Your task to perform on an android device: Open calendar and show me the third week of next month Image 0: 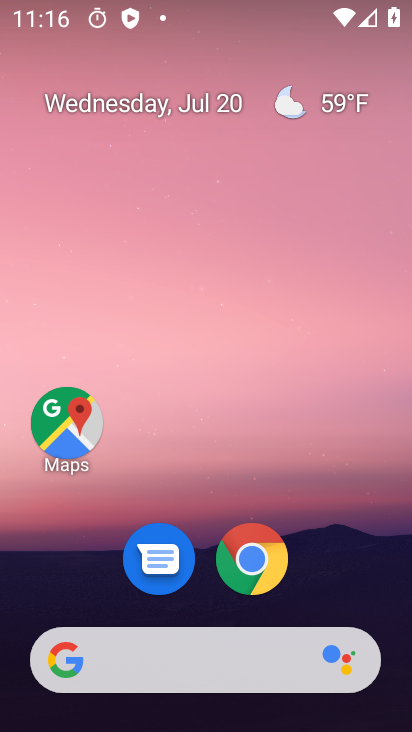
Step 0: drag from (132, 465) to (153, 8)
Your task to perform on an android device: Open calendar and show me the third week of next month Image 1: 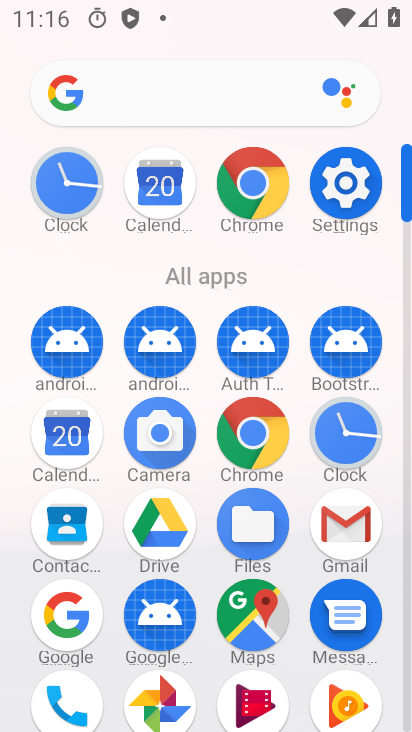
Step 1: click (54, 440)
Your task to perform on an android device: Open calendar and show me the third week of next month Image 2: 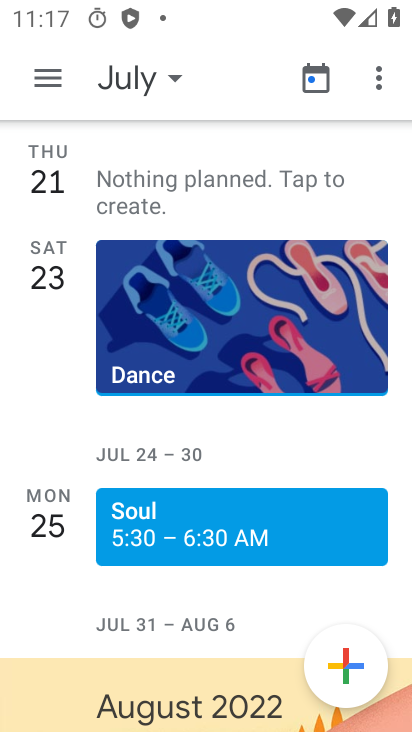
Step 2: click (160, 78)
Your task to perform on an android device: Open calendar and show me the third week of next month Image 3: 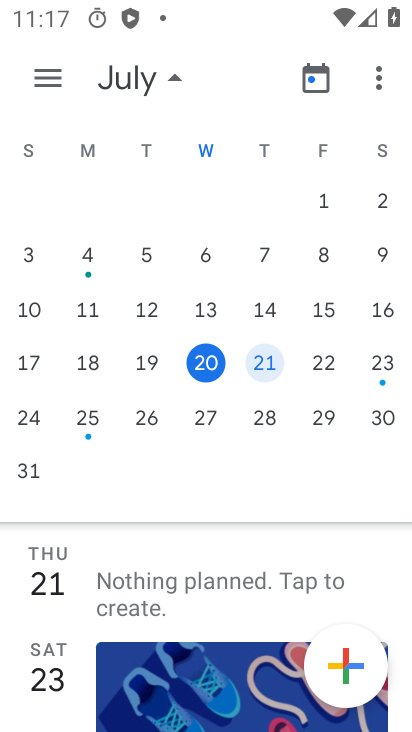
Step 3: drag from (348, 330) to (18, 325)
Your task to perform on an android device: Open calendar and show me the third week of next month Image 4: 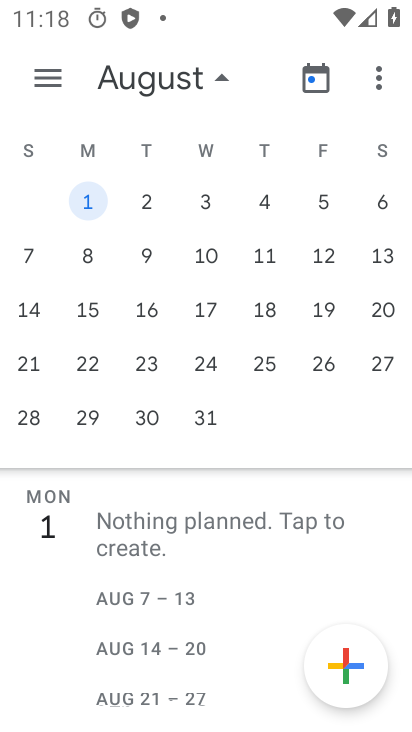
Step 4: click (95, 302)
Your task to perform on an android device: Open calendar and show me the third week of next month Image 5: 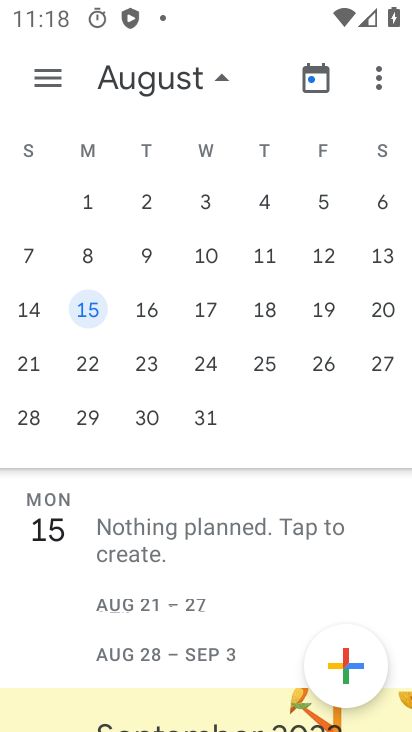
Step 5: task complete